Your task to perform on an android device: Open Google Maps and go to "Timeline" Image 0: 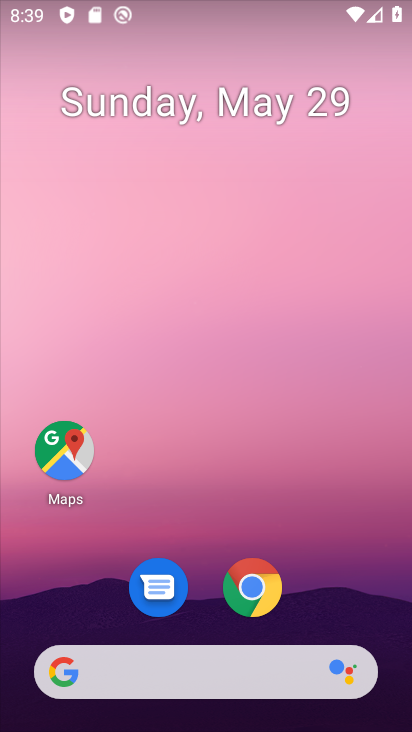
Step 0: click (69, 452)
Your task to perform on an android device: Open Google Maps and go to "Timeline" Image 1: 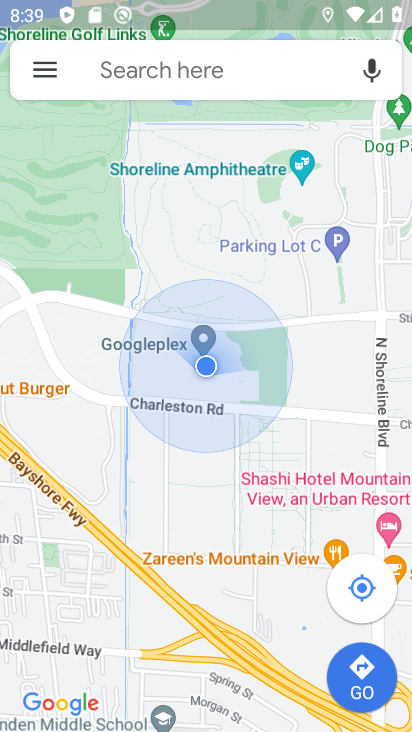
Step 1: click (45, 62)
Your task to perform on an android device: Open Google Maps and go to "Timeline" Image 2: 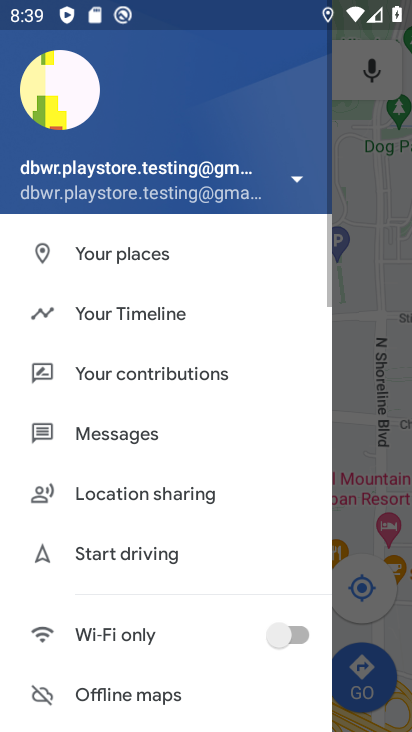
Step 2: click (135, 311)
Your task to perform on an android device: Open Google Maps and go to "Timeline" Image 3: 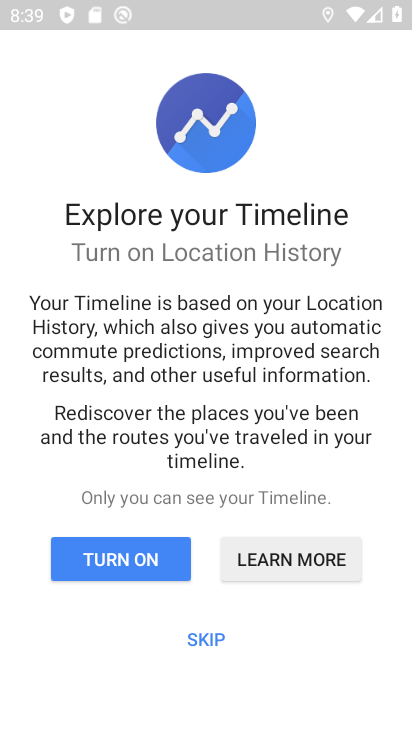
Step 3: click (202, 647)
Your task to perform on an android device: Open Google Maps and go to "Timeline" Image 4: 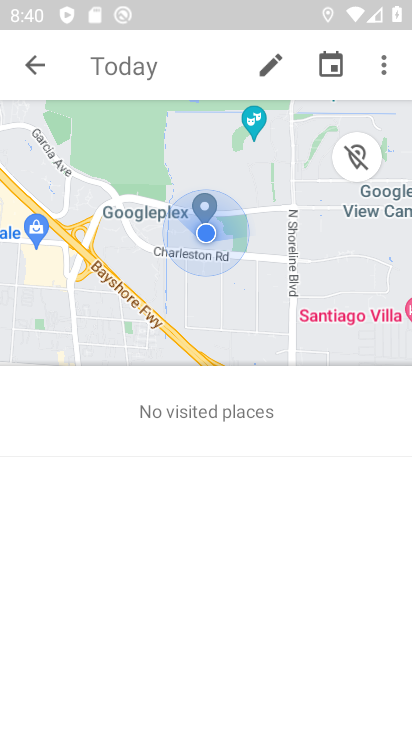
Step 4: task complete